Your task to perform on an android device: turn pop-ups on in chrome Image 0: 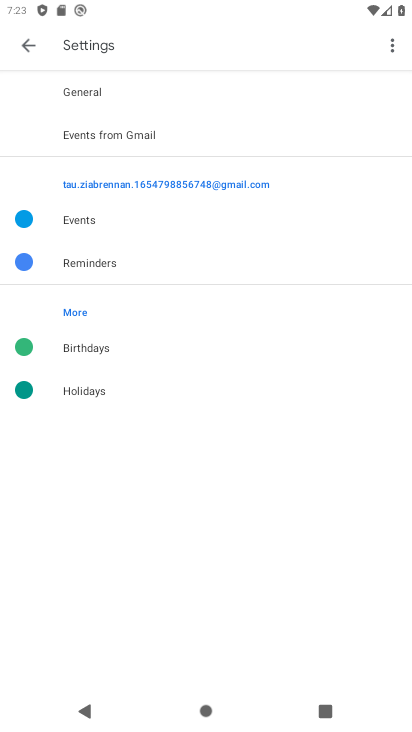
Step 0: press home button
Your task to perform on an android device: turn pop-ups on in chrome Image 1: 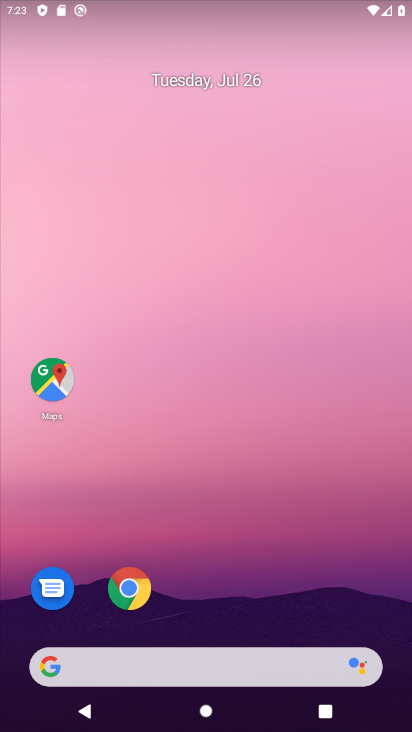
Step 1: click (123, 594)
Your task to perform on an android device: turn pop-ups on in chrome Image 2: 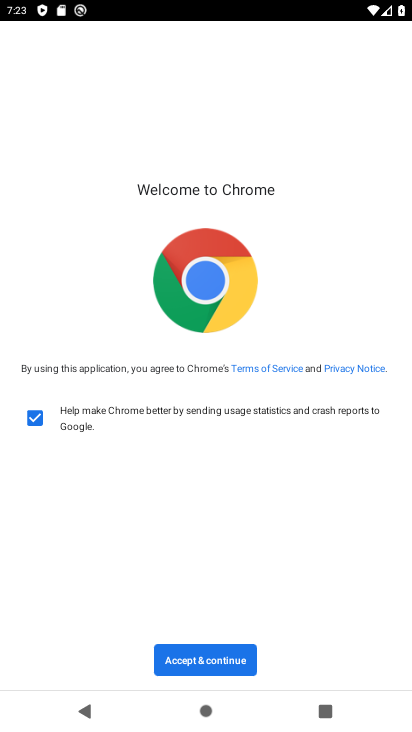
Step 2: click (188, 658)
Your task to perform on an android device: turn pop-ups on in chrome Image 3: 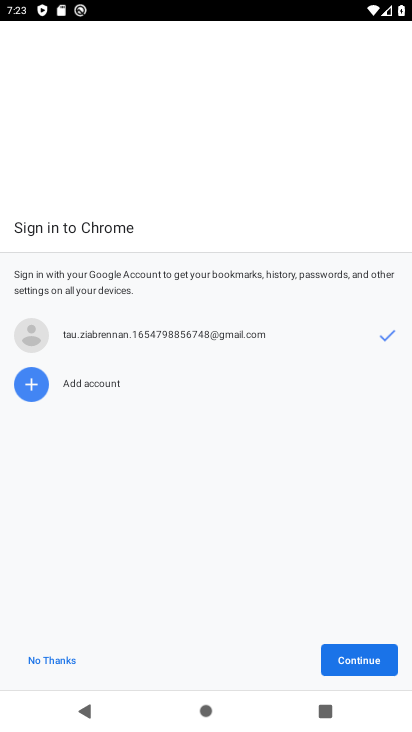
Step 3: click (351, 661)
Your task to perform on an android device: turn pop-ups on in chrome Image 4: 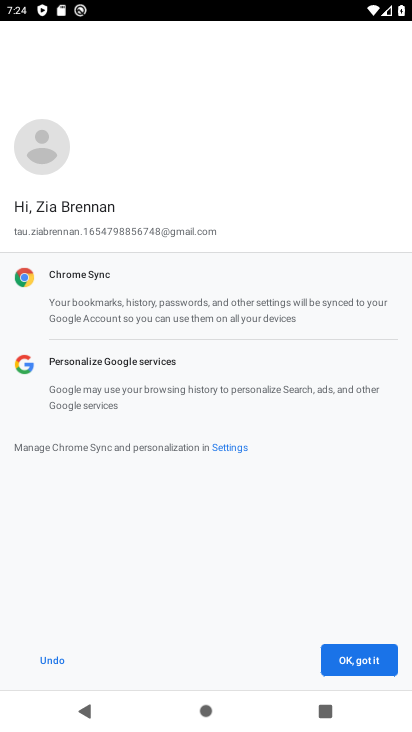
Step 4: click (366, 665)
Your task to perform on an android device: turn pop-ups on in chrome Image 5: 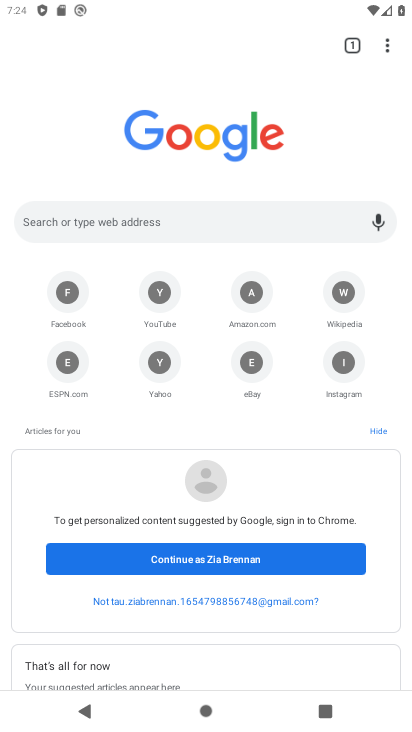
Step 5: task complete